Your task to perform on an android device: turn off data saver in the chrome app Image 0: 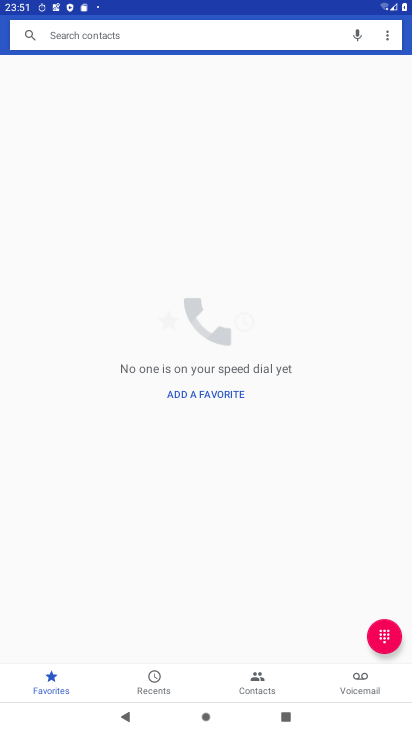
Step 0: press home button
Your task to perform on an android device: turn off data saver in the chrome app Image 1: 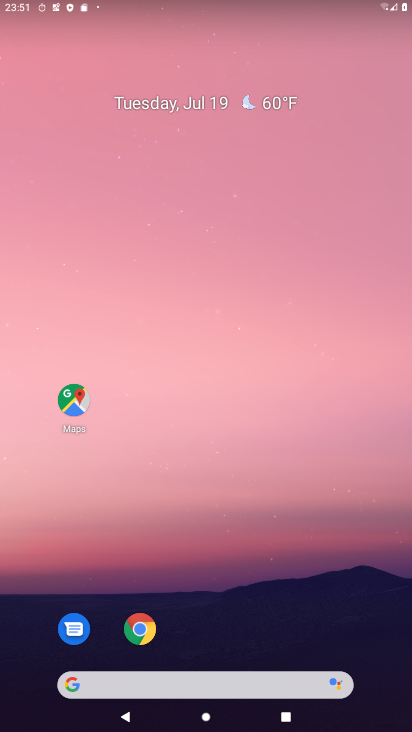
Step 1: click (142, 633)
Your task to perform on an android device: turn off data saver in the chrome app Image 2: 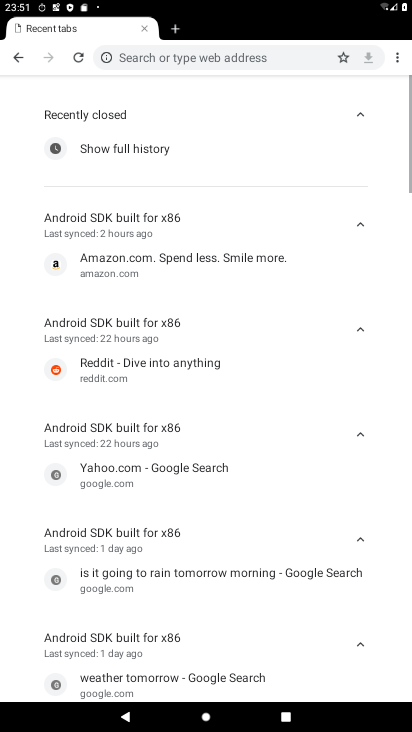
Step 2: click (392, 53)
Your task to perform on an android device: turn off data saver in the chrome app Image 3: 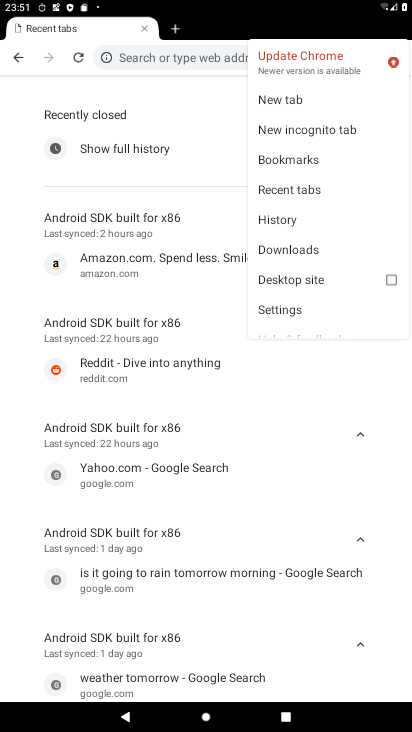
Step 3: click (315, 320)
Your task to perform on an android device: turn off data saver in the chrome app Image 4: 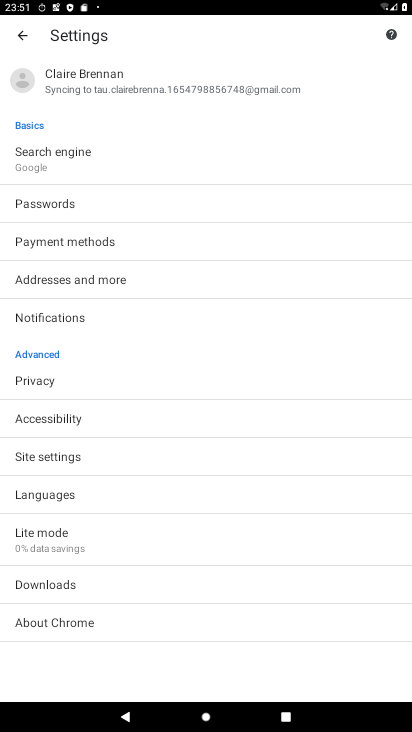
Step 4: click (90, 534)
Your task to perform on an android device: turn off data saver in the chrome app Image 5: 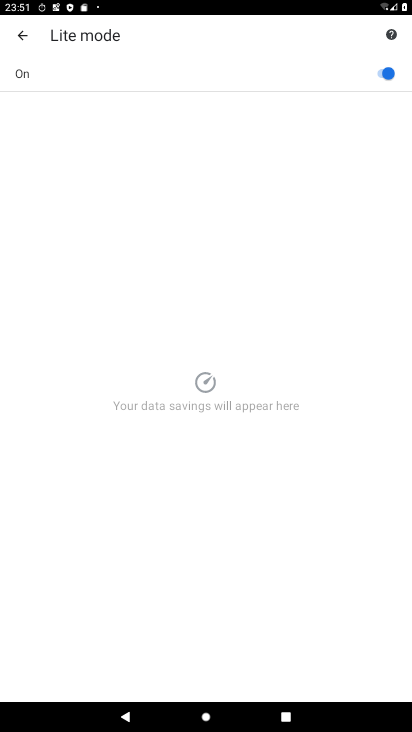
Step 5: click (396, 80)
Your task to perform on an android device: turn off data saver in the chrome app Image 6: 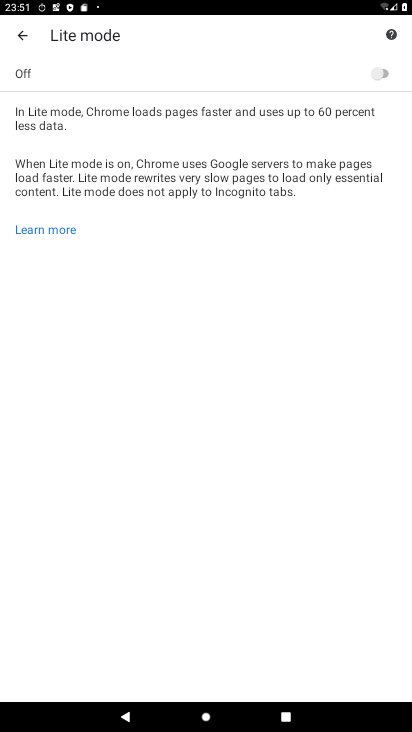
Step 6: task complete